Your task to perform on an android device: set default search engine in the chrome app Image 0: 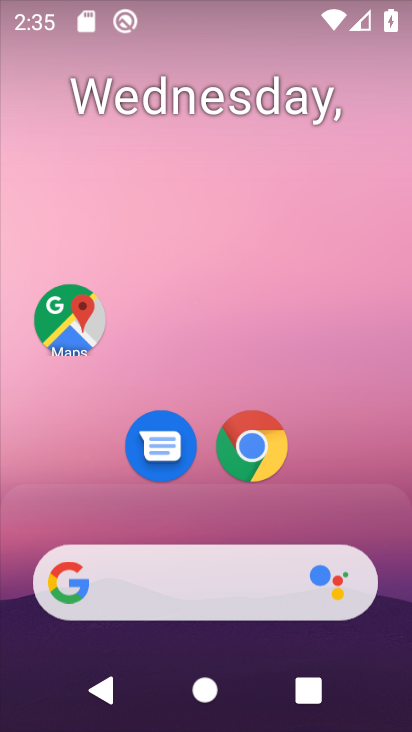
Step 0: click (247, 448)
Your task to perform on an android device: set default search engine in the chrome app Image 1: 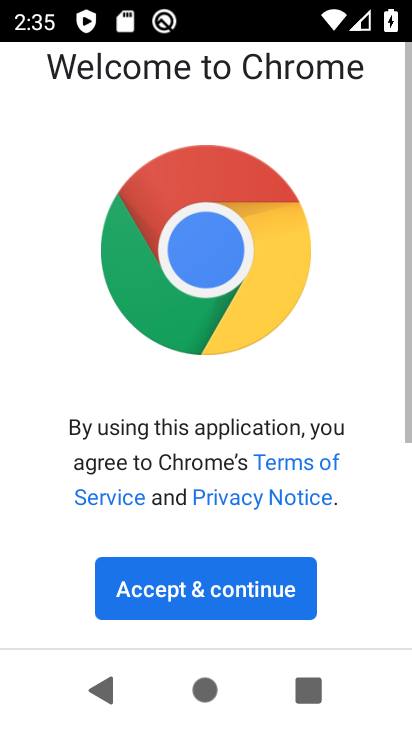
Step 1: click (288, 592)
Your task to perform on an android device: set default search engine in the chrome app Image 2: 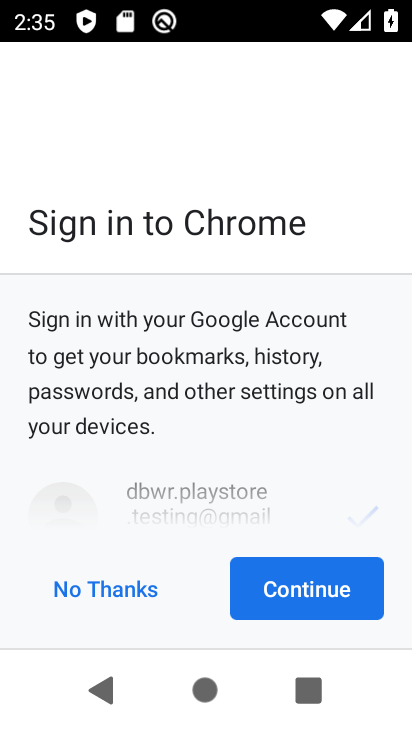
Step 2: click (290, 599)
Your task to perform on an android device: set default search engine in the chrome app Image 3: 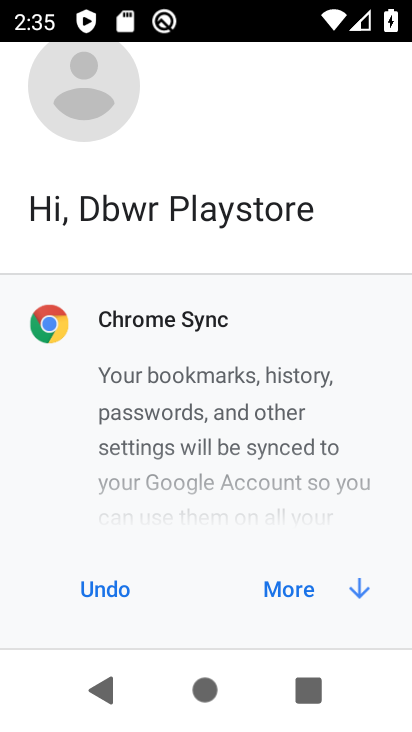
Step 3: click (365, 588)
Your task to perform on an android device: set default search engine in the chrome app Image 4: 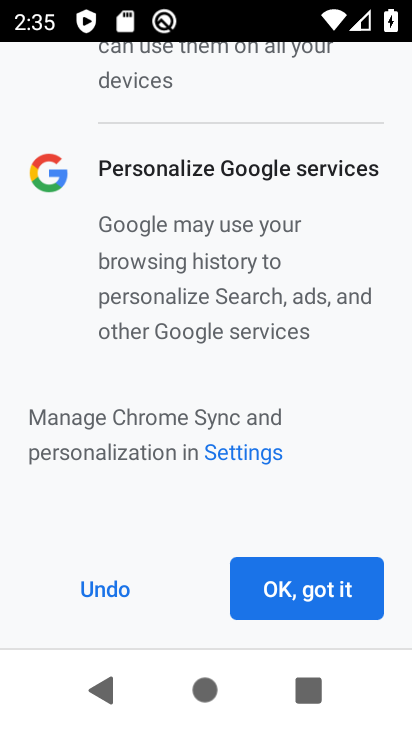
Step 4: click (298, 589)
Your task to perform on an android device: set default search engine in the chrome app Image 5: 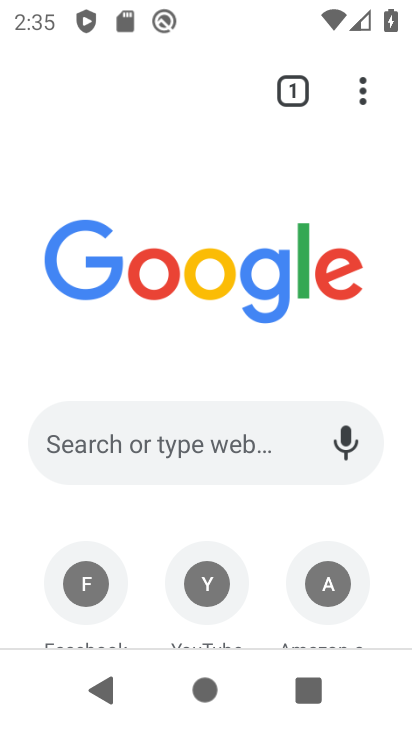
Step 5: click (369, 82)
Your task to perform on an android device: set default search engine in the chrome app Image 6: 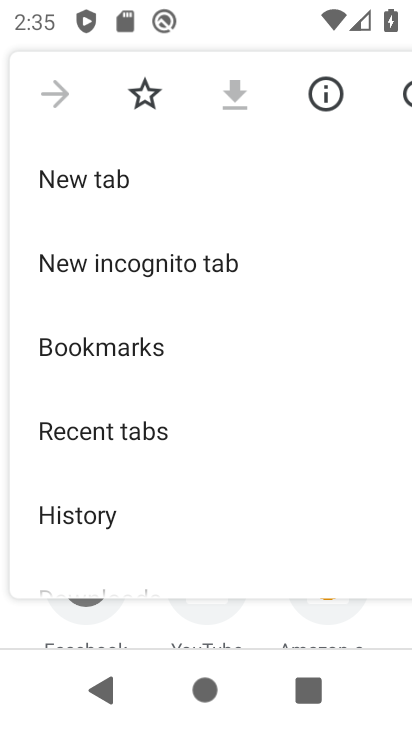
Step 6: drag from (239, 564) to (226, 92)
Your task to perform on an android device: set default search engine in the chrome app Image 7: 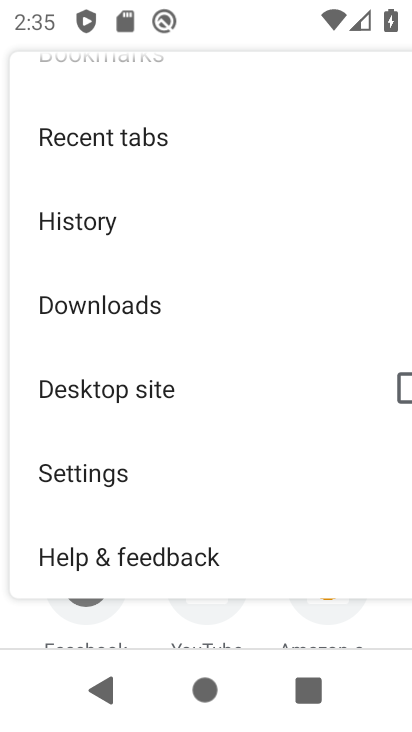
Step 7: click (163, 451)
Your task to perform on an android device: set default search engine in the chrome app Image 8: 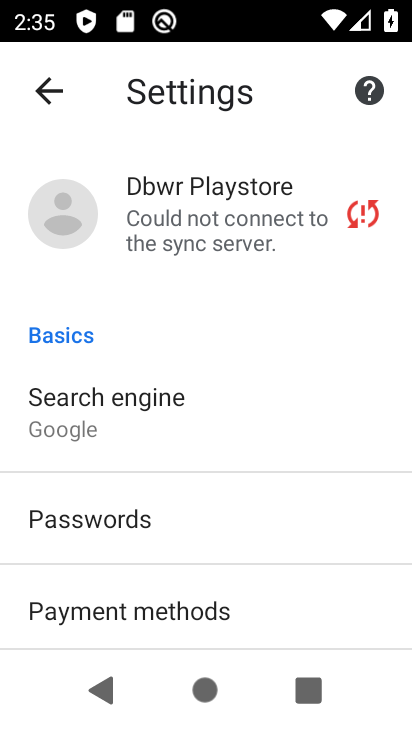
Step 8: click (155, 409)
Your task to perform on an android device: set default search engine in the chrome app Image 9: 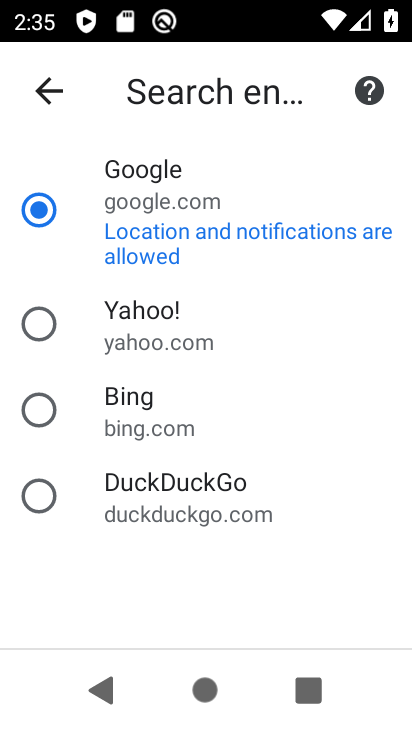
Step 9: task complete